Your task to perform on an android device: Turn on the flashlight Image 0: 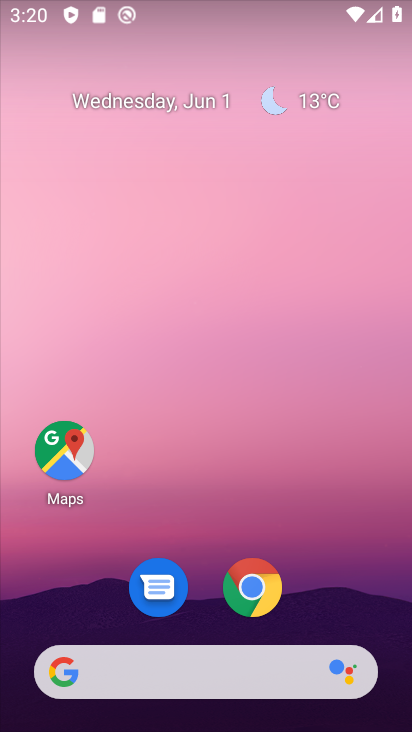
Step 0: drag from (338, 571) to (279, 11)
Your task to perform on an android device: Turn on the flashlight Image 1: 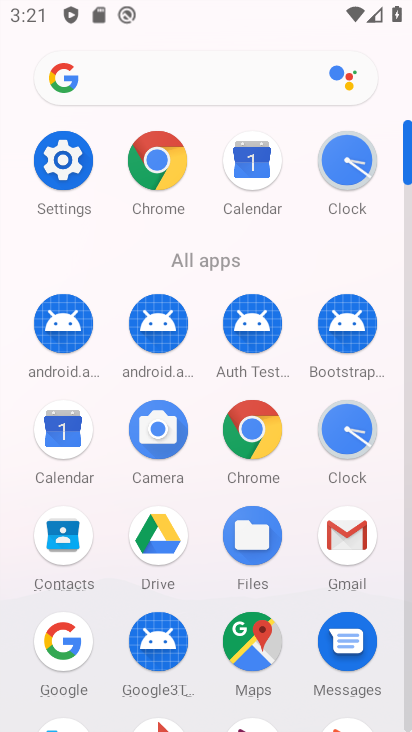
Step 1: click (65, 153)
Your task to perform on an android device: Turn on the flashlight Image 2: 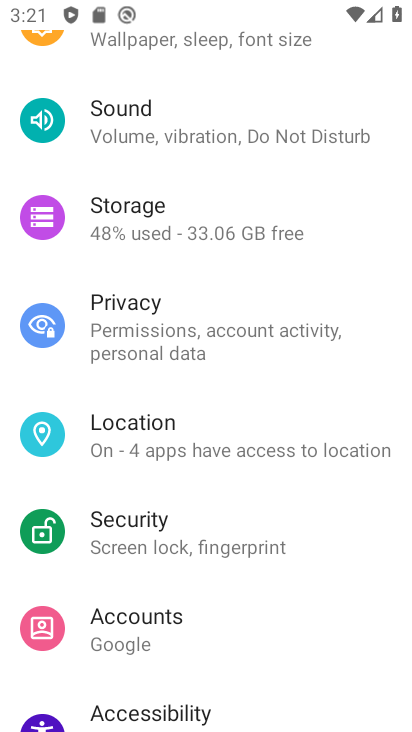
Step 2: drag from (316, 147) to (313, 621)
Your task to perform on an android device: Turn on the flashlight Image 3: 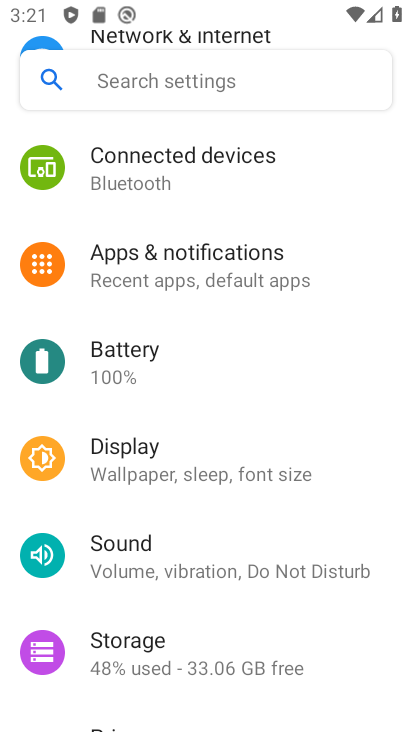
Step 3: drag from (338, 207) to (295, 644)
Your task to perform on an android device: Turn on the flashlight Image 4: 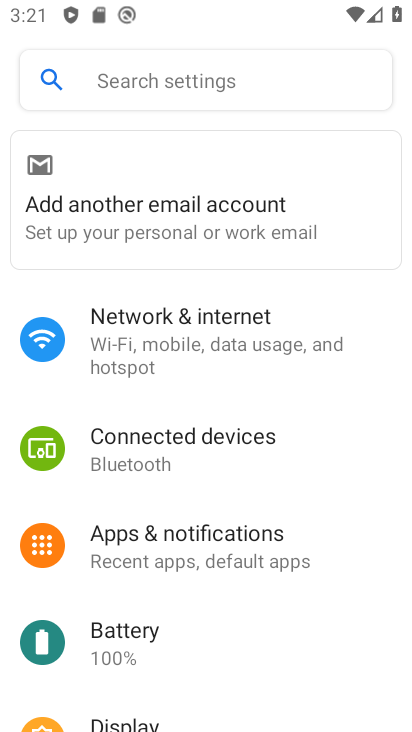
Step 4: click (241, 319)
Your task to perform on an android device: Turn on the flashlight Image 5: 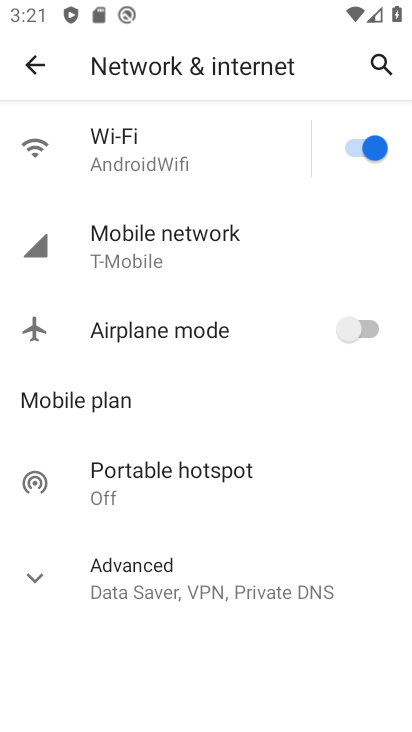
Step 5: click (30, 572)
Your task to perform on an android device: Turn on the flashlight Image 6: 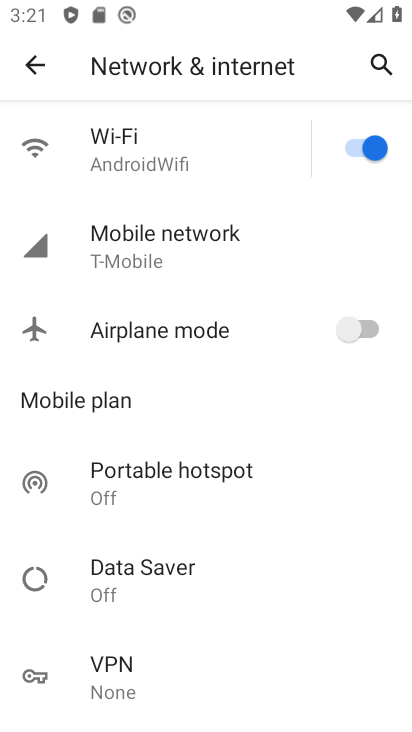
Step 6: task complete